Your task to perform on an android device: What's on my calendar today? Image 0: 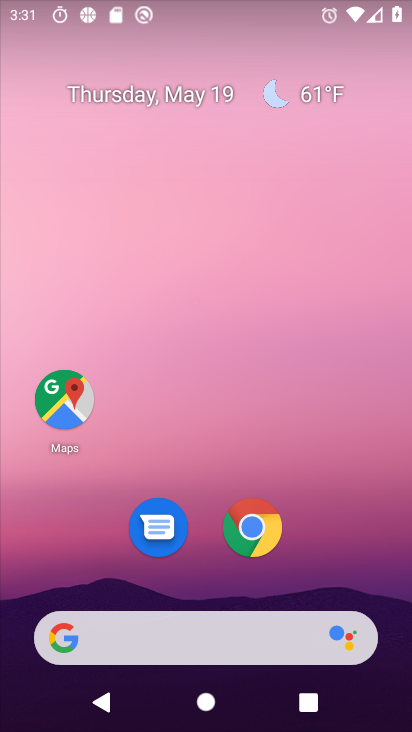
Step 0: drag from (238, 528) to (274, 39)
Your task to perform on an android device: What's on my calendar today? Image 1: 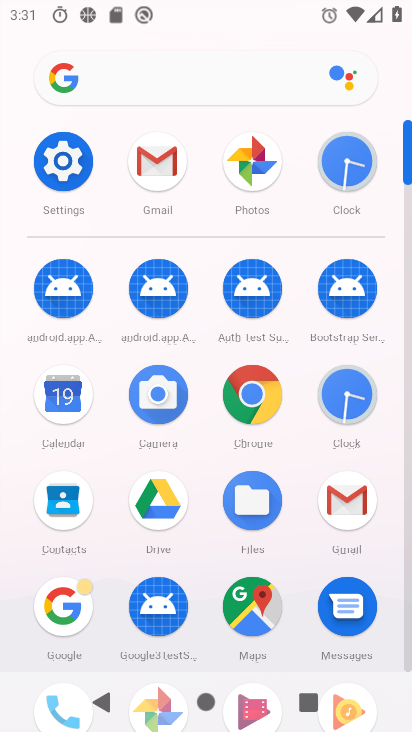
Step 1: click (67, 403)
Your task to perform on an android device: What's on my calendar today? Image 2: 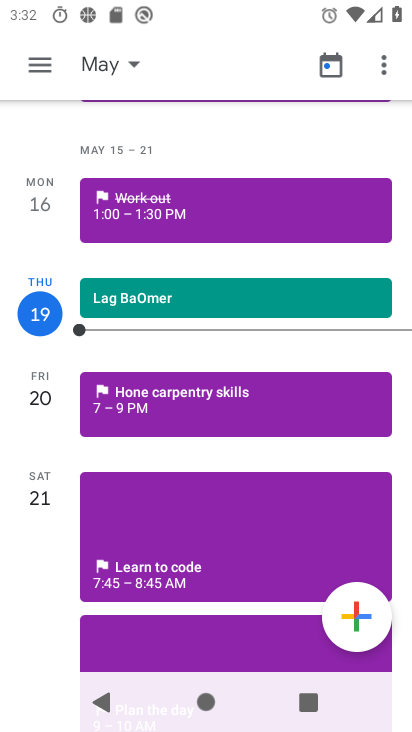
Step 2: click (159, 298)
Your task to perform on an android device: What's on my calendar today? Image 3: 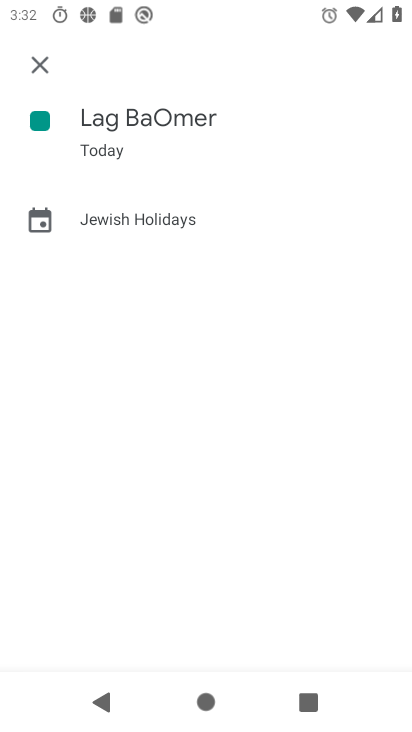
Step 3: task complete